Your task to perform on an android device: Go to sound settings Image 0: 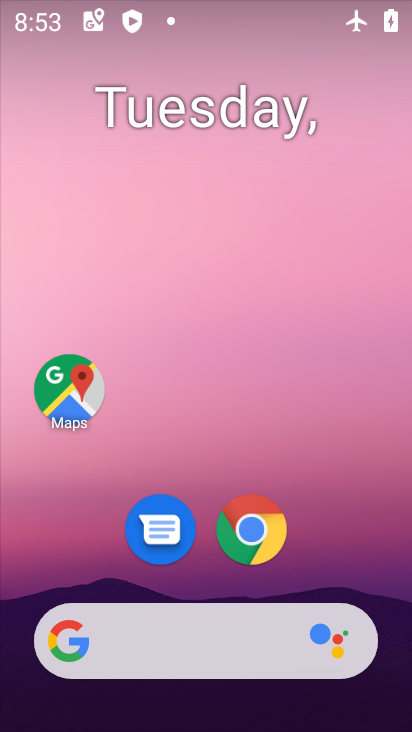
Step 0: drag from (162, 636) to (171, 180)
Your task to perform on an android device: Go to sound settings Image 1: 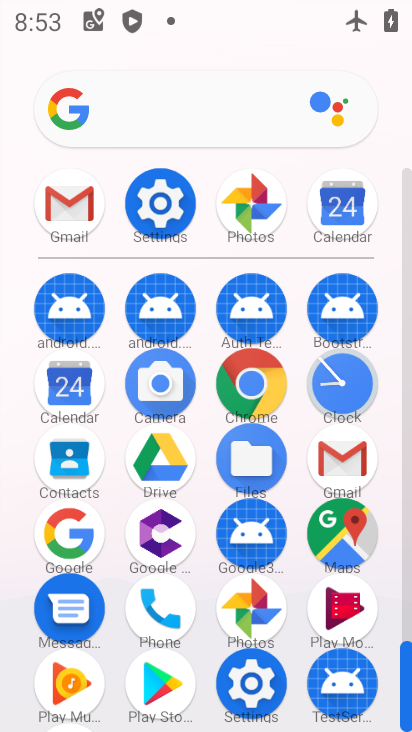
Step 1: click (169, 206)
Your task to perform on an android device: Go to sound settings Image 2: 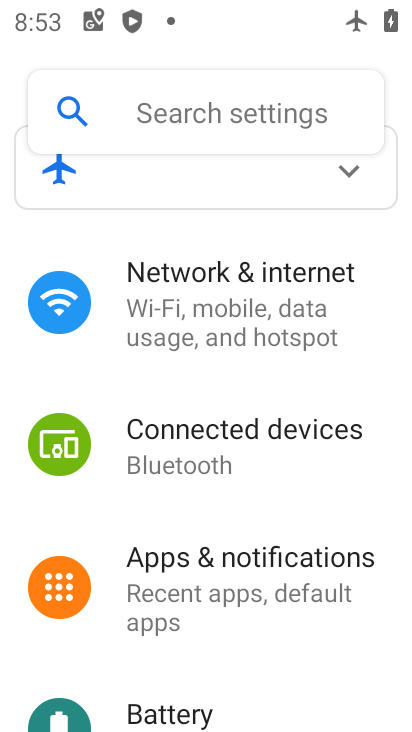
Step 2: drag from (216, 549) to (277, 145)
Your task to perform on an android device: Go to sound settings Image 3: 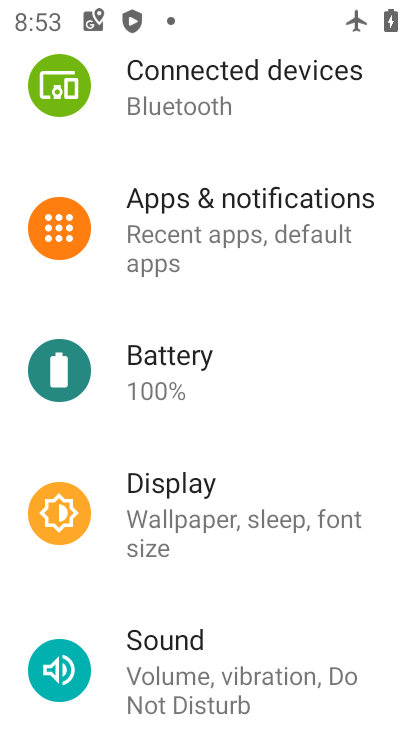
Step 3: drag from (204, 561) to (206, 403)
Your task to perform on an android device: Go to sound settings Image 4: 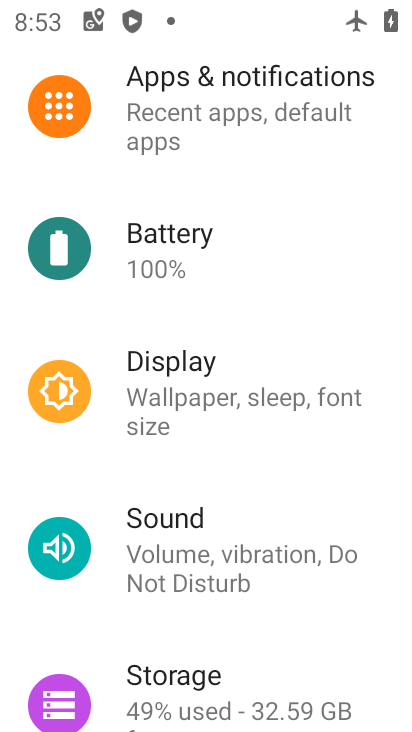
Step 4: click (186, 549)
Your task to perform on an android device: Go to sound settings Image 5: 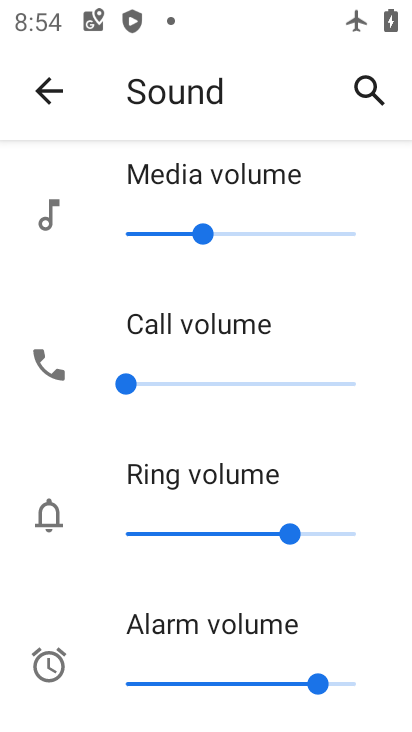
Step 5: task complete